Your task to perform on an android device: create a new album in the google photos Image 0: 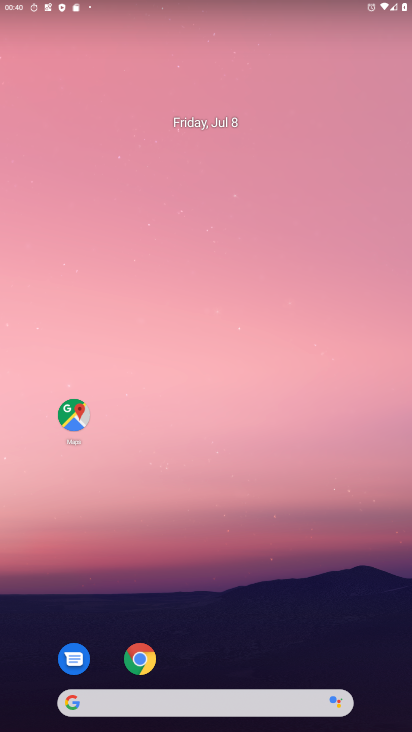
Step 0: drag from (186, 676) to (224, 102)
Your task to perform on an android device: create a new album in the google photos Image 1: 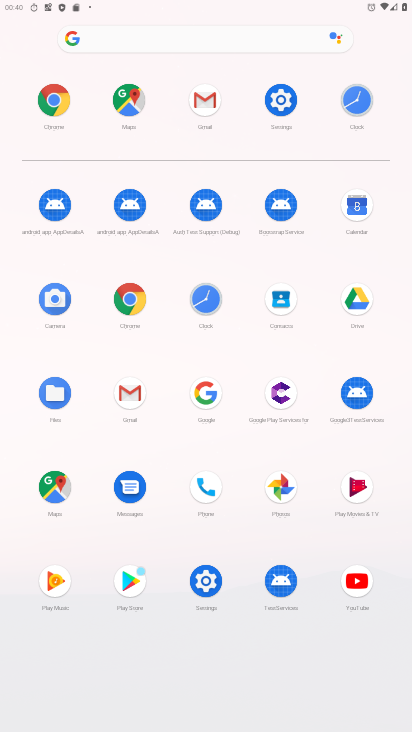
Step 1: click (267, 481)
Your task to perform on an android device: create a new album in the google photos Image 2: 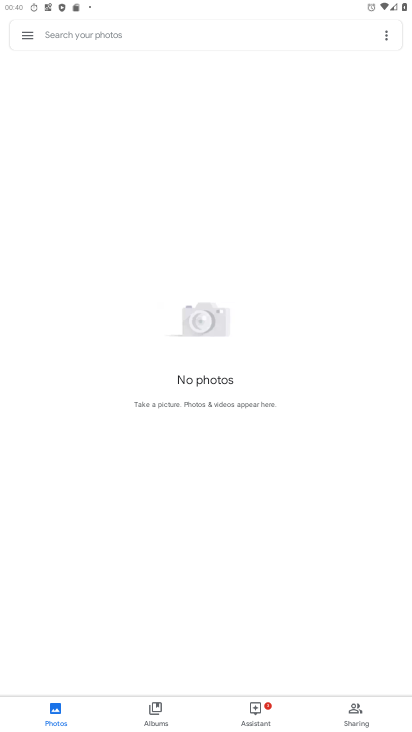
Step 2: task complete